Your task to perform on an android device: When is my next meeting? Image 0: 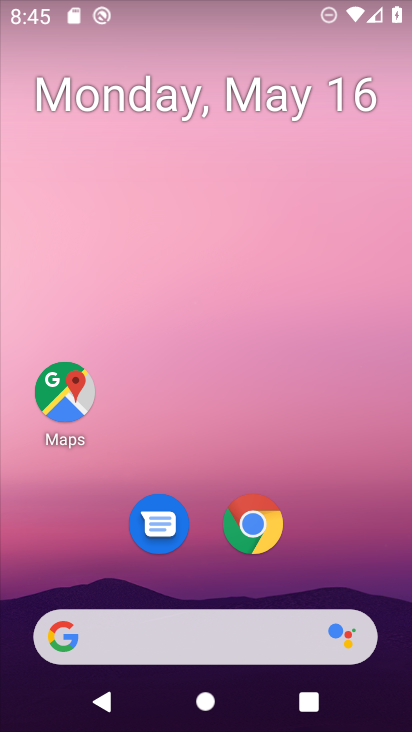
Step 0: drag from (309, 533) to (229, 100)
Your task to perform on an android device: When is my next meeting? Image 1: 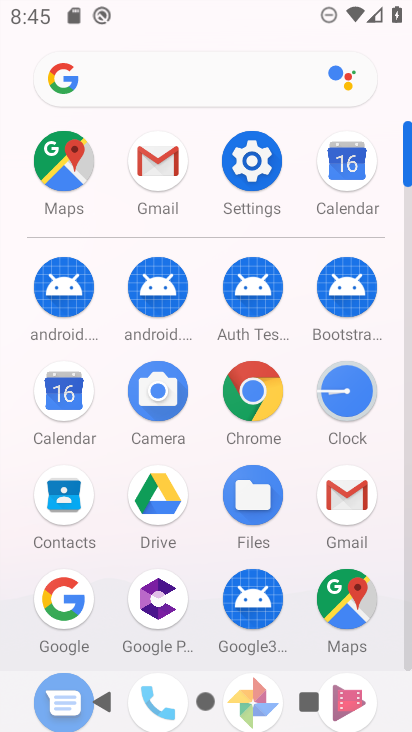
Step 1: click (341, 157)
Your task to perform on an android device: When is my next meeting? Image 2: 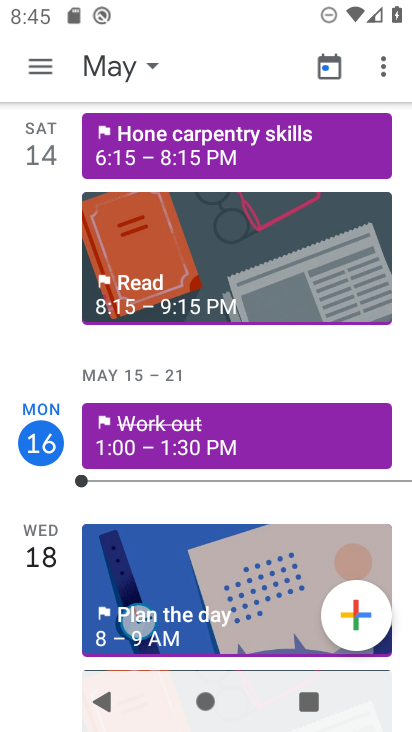
Step 2: task complete